Your task to perform on an android device: install app "Microsoft Authenticator" Image 0: 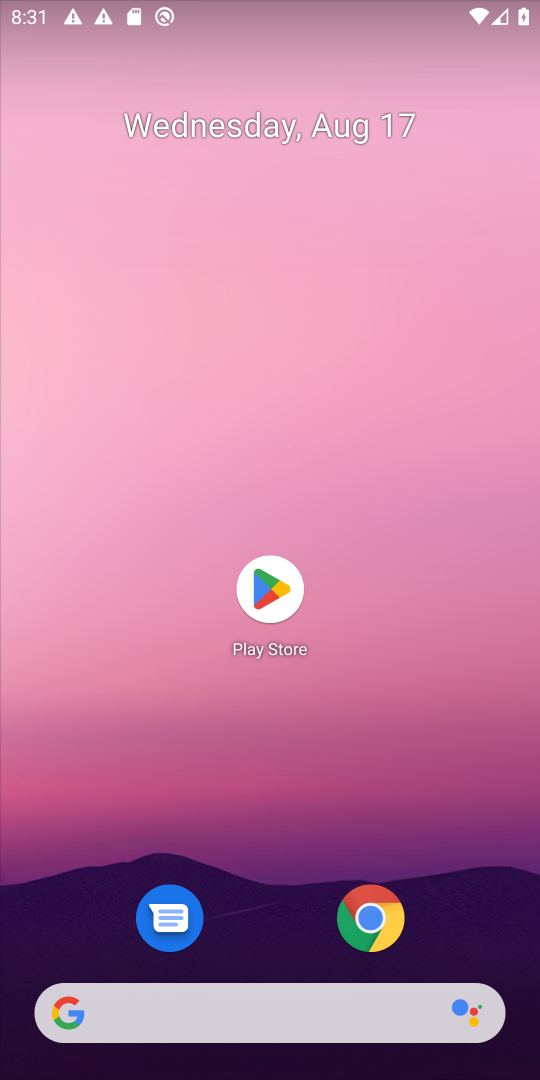
Step 0: click (271, 580)
Your task to perform on an android device: install app "Microsoft Authenticator" Image 1: 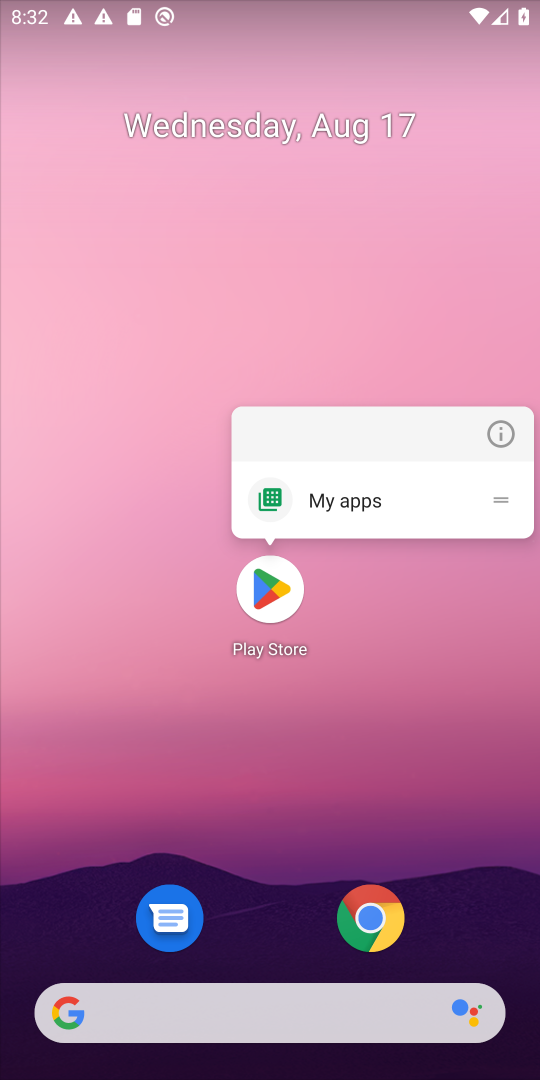
Step 1: click (268, 596)
Your task to perform on an android device: install app "Microsoft Authenticator" Image 2: 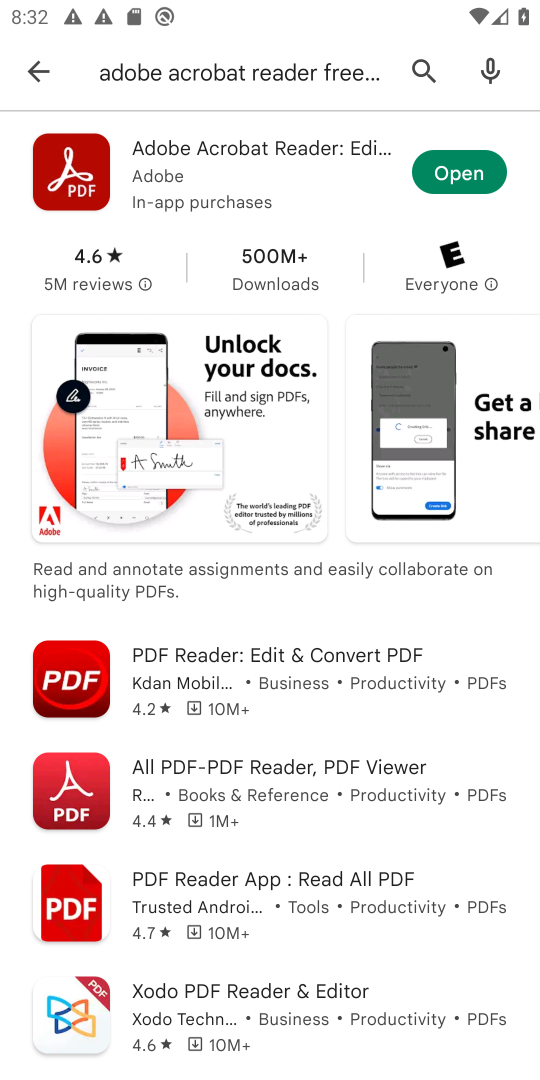
Step 2: click (421, 70)
Your task to perform on an android device: install app "Microsoft Authenticator" Image 3: 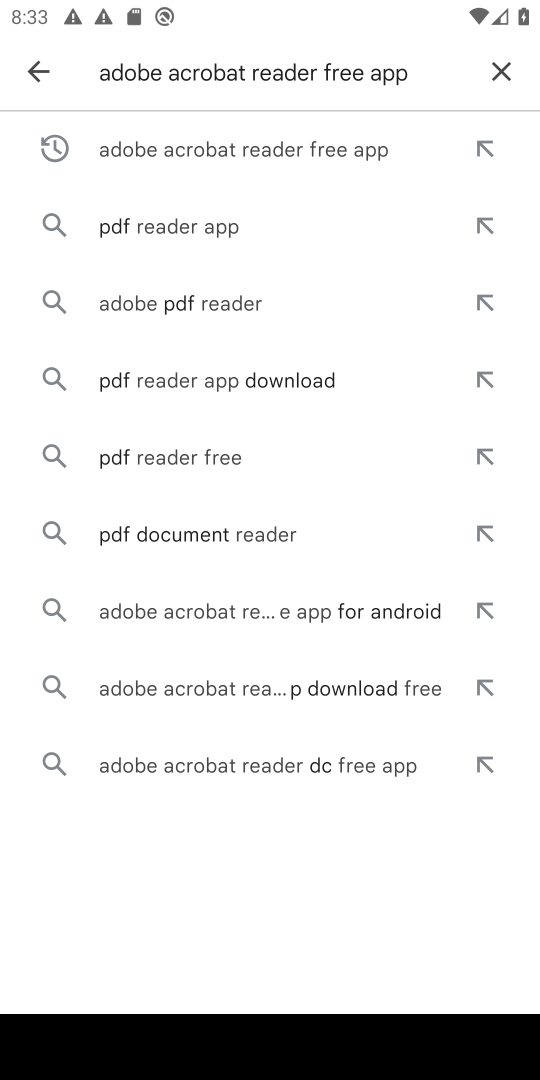
Step 3: click (504, 62)
Your task to perform on an android device: install app "Microsoft Authenticator" Image 4: 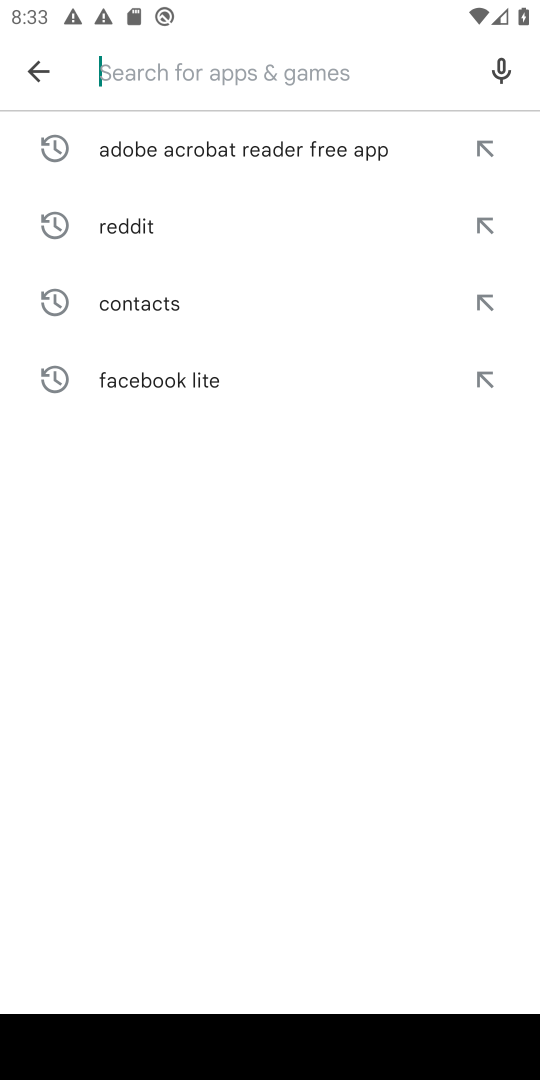
Step 4: type "Microsoft Authenticator"
Your task to perform on an android device: install app "Microsoft Authenticator" Image 5: 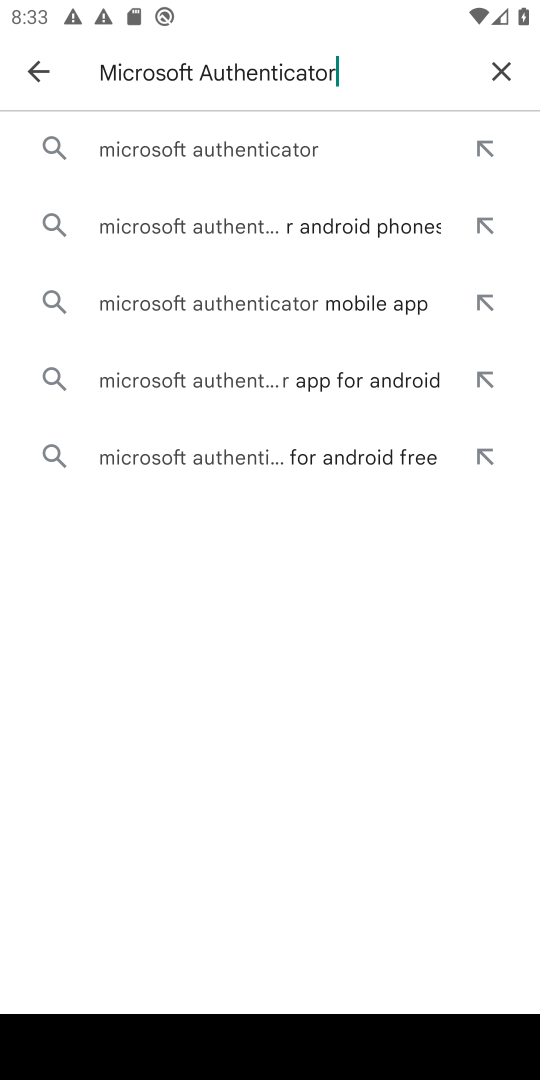
Step 5: click (261, 147)
Your task to perform on an android device: install app "Microsoft Authenticator" Image 6: 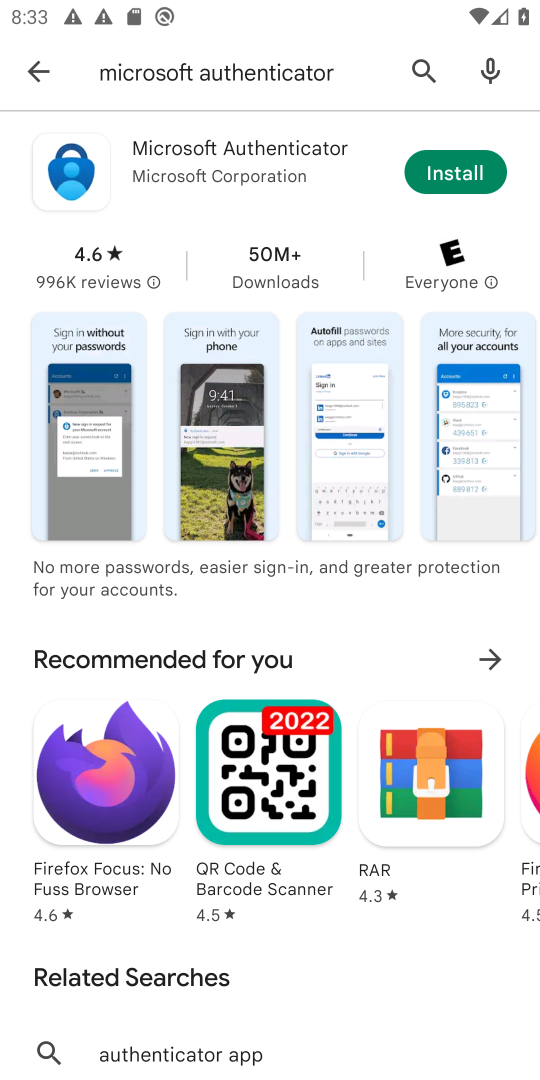
Step 6: click (446, 174)
Your task to perform on an android device: install app "Microsoft Authenticator" Image 7: 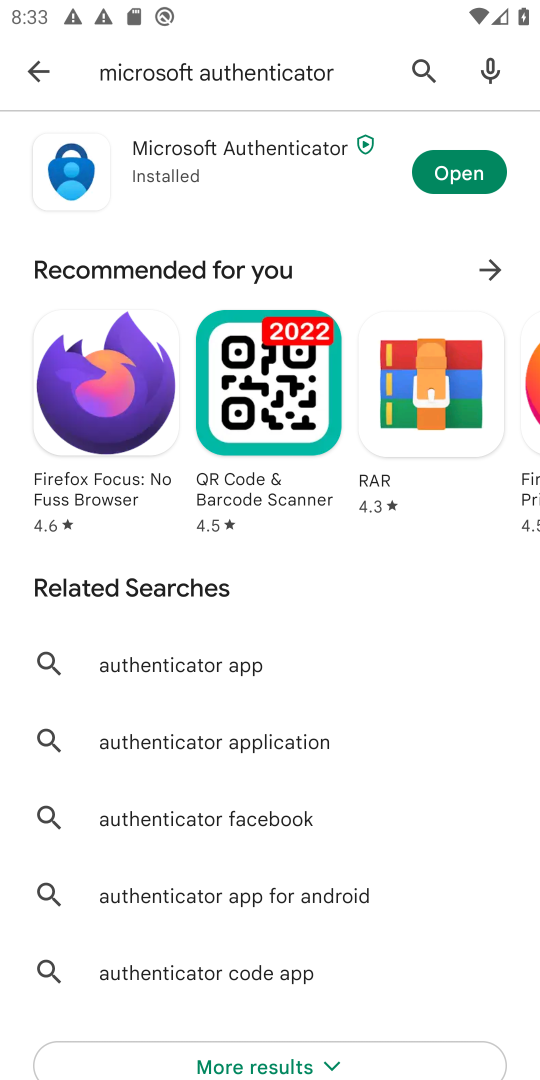
Step 7: task complete